Your task to perform on an android device: Go to Android settings Image 0: 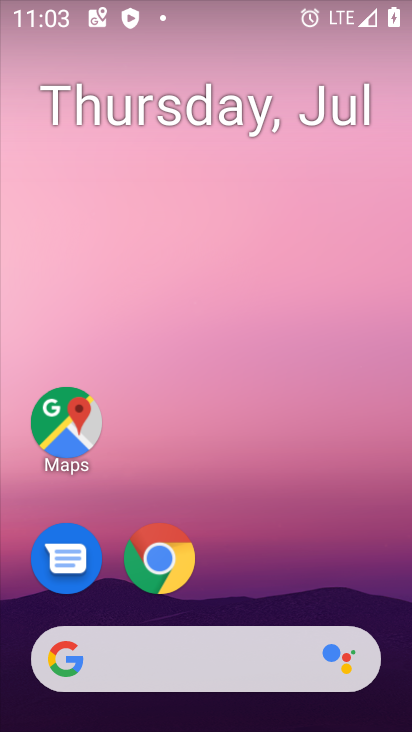
Step 0: drag from (341, 579) to (382, 74)
Your task to perform on an android device: Go to Android settings Image 1: 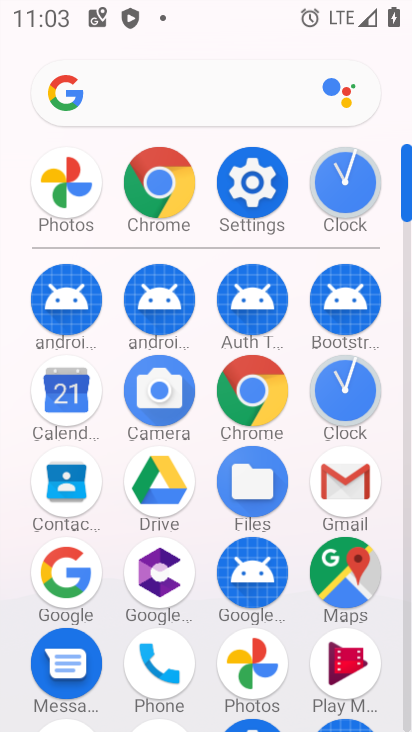
Step 1: click (259, 192)
Your task to perform on an android device: Go to Android settings Image 2: 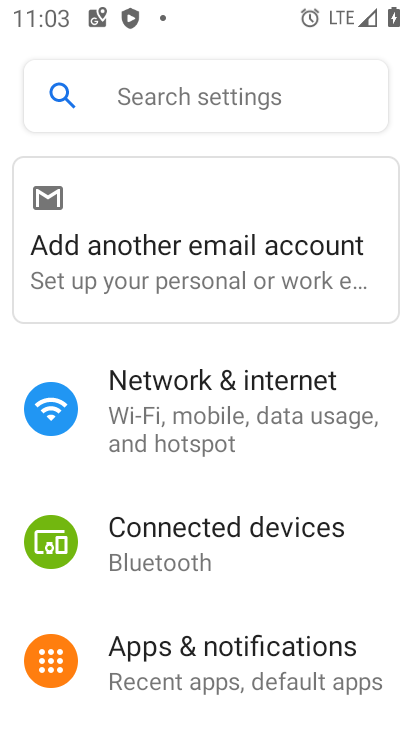
Step 2: drag from (368, 488) to (365, 361)
Your task to perform on an android device: Go to Android settings Image 3: 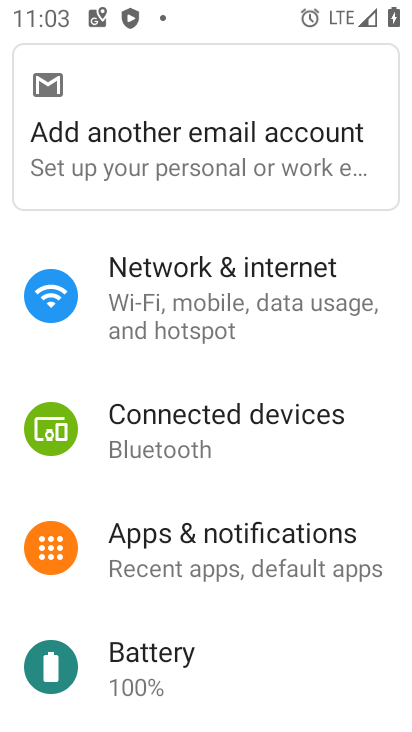
Step 3: drag from (372, 486) to (368, 373)
Your task to perform on an android device: Go to Android settings Image 4: 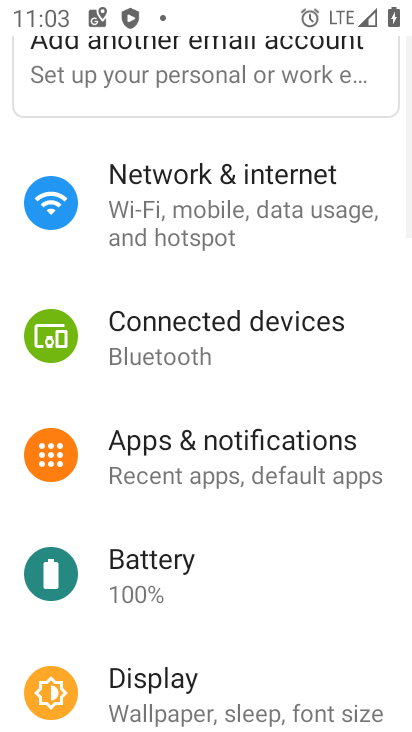
Step 4: drag from (361, 559) to (364, 396)
Your task to perform on an android device: Go to Android settings Image 5: 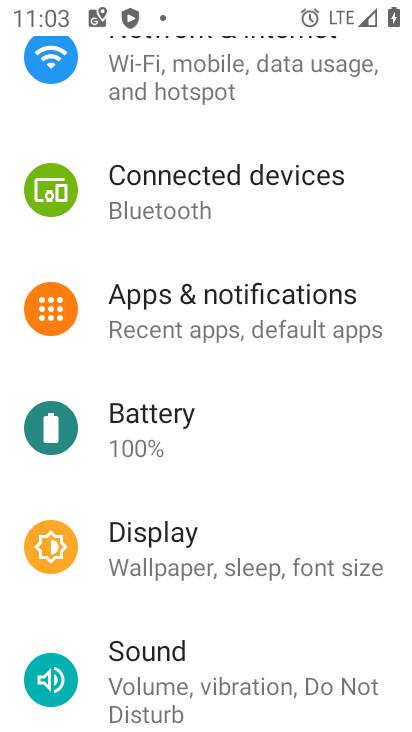
Step 5: drag from (352, 466) to (353, 343)
Your task to perform on an android device: Go to Android settings Image 6: 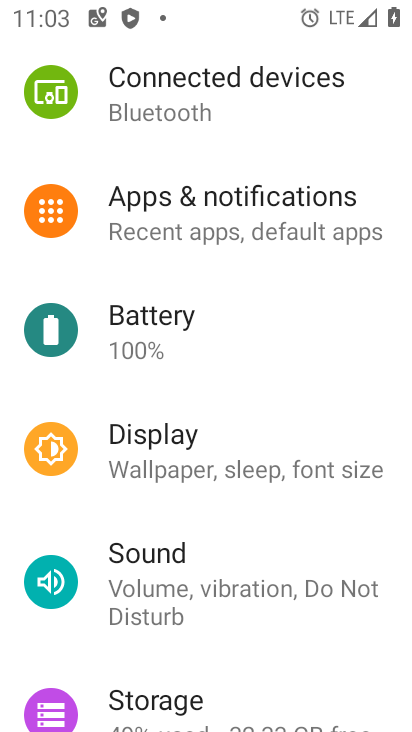
Step 6: drag from (346, 517) to (347, 392)
Your task to perform on an android device: Go to Android settings Image 7: 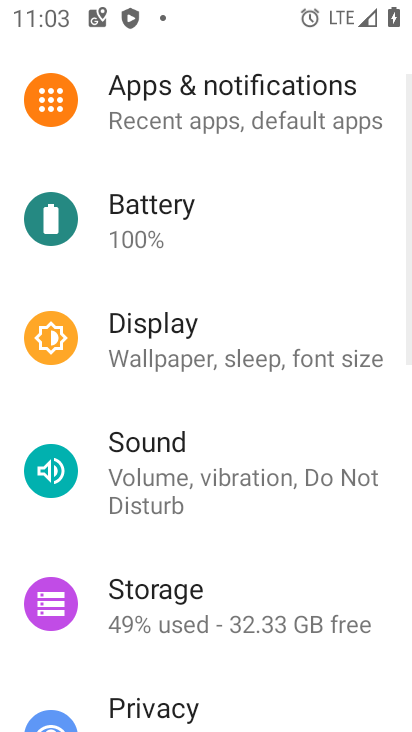
Step 7: drag from (342, 570) to (346, 464)
Your task to perform on an android device: Go to Android settings Image 8: 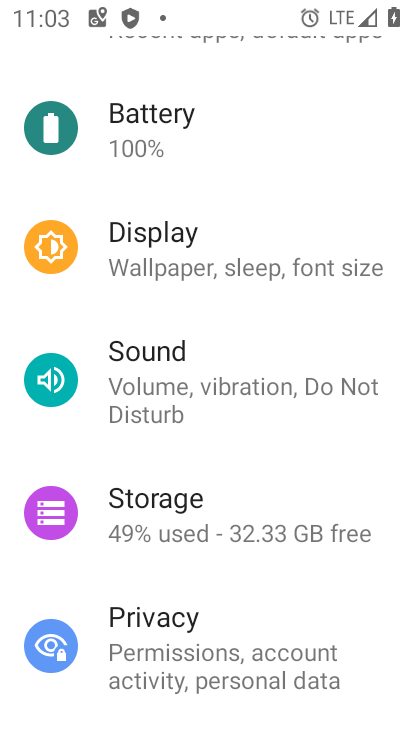
Step 8: drag from (349, 592) to (348, 488)
Your task to perform on an android device: Go to Android settings Image 9: 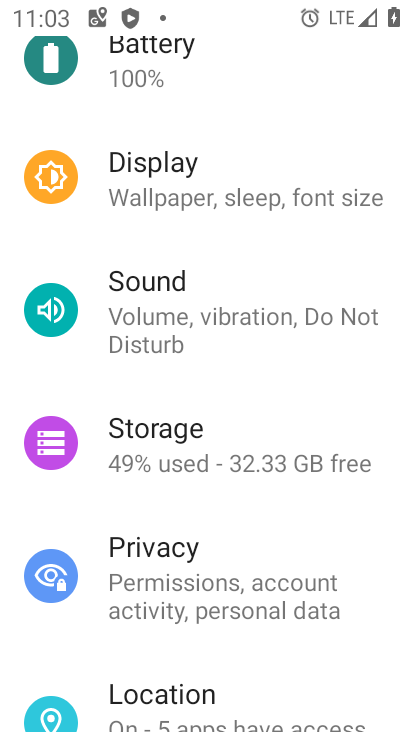
Step 9: drag from (348, 651) to (349, 511)
Your task to perform on an android device: Go to Android settings Image 10: 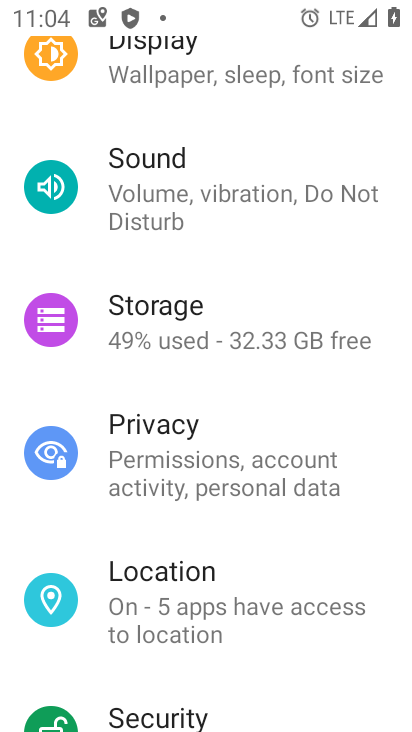
Step 10: drag from (347, 659) to (348, 541)
Your task to perform on an android device: Go to Android settings Image 11: 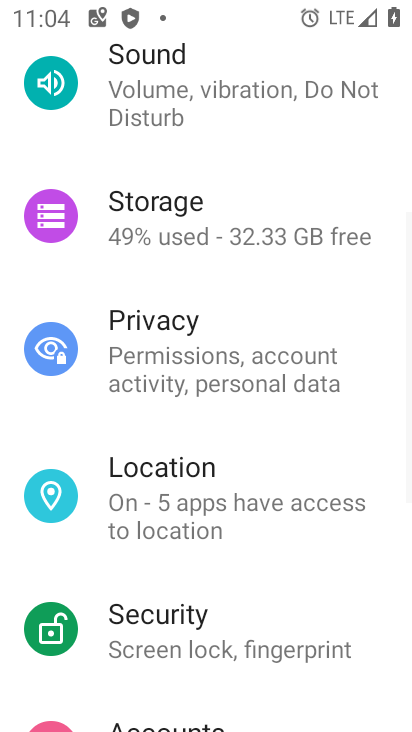
Step 11: drag from (361, 684) to (369, 364)
Your task to perform on an android device: Go to Android settings Image 12: 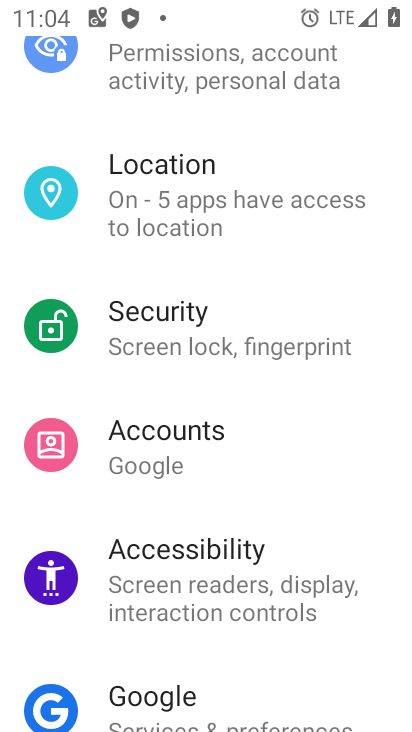
Step 12: drag from (330, 612) to (342, 421)
Your task to perform on an android device: Go to Android settings Image 13: 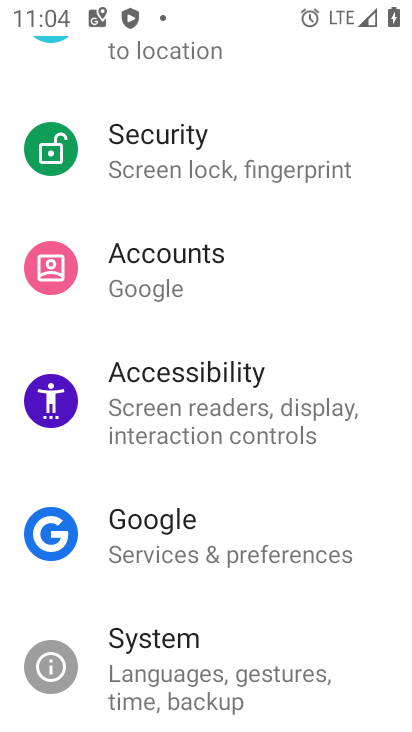
Step 13: drag from (329, 612) to (326, 433)
Your task to perform on an android device: Go to Android settings Image 14: 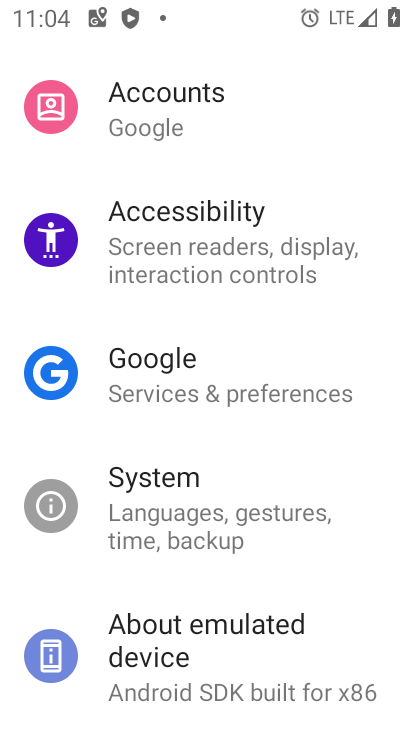
Step 14: click (331, 506)
Your task to perform on an android device: Go to Android settings Image 15: 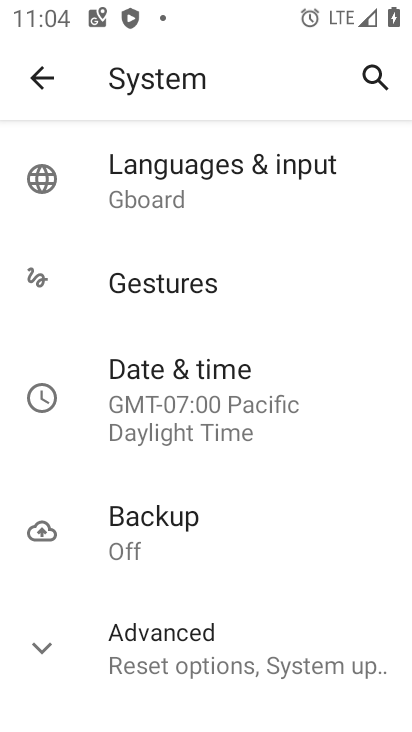
Step 15: click (278, 643)
Your task to perform on an android device: Go to Android settings Image 16: 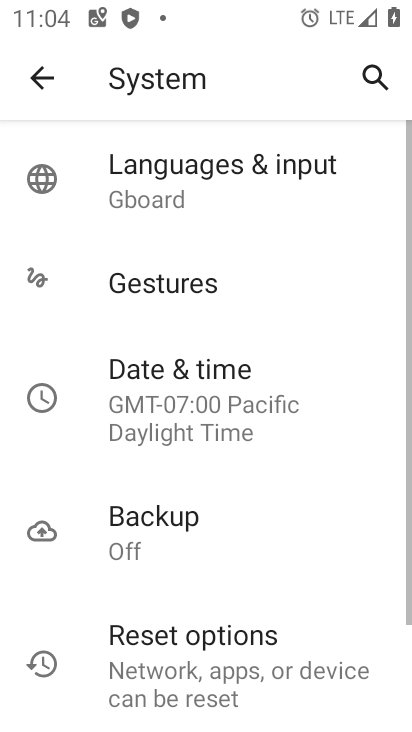
Step 16: task complete